Your task to perform on an android device: Open Google Image 0: 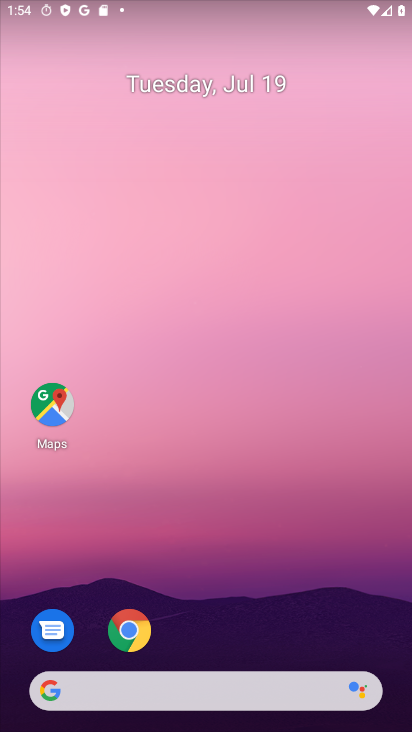
Step 0: drag from (229, 611) to (229, 133)
Your task to perform on an android device: Open Google Image 1: 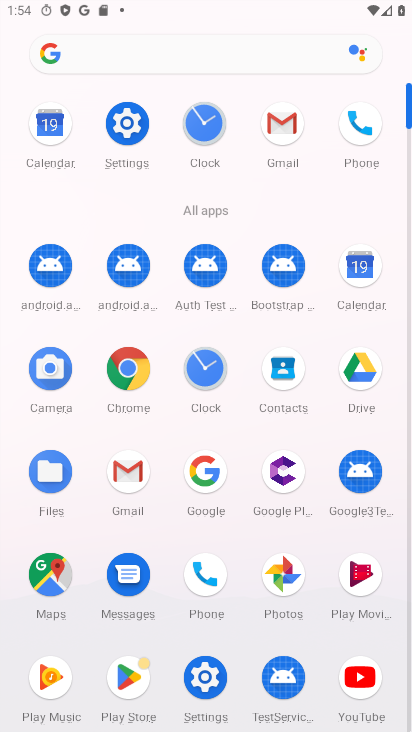
Step 1: click (206, 483)
Your task to perform on an android device: Open Google Image 2: 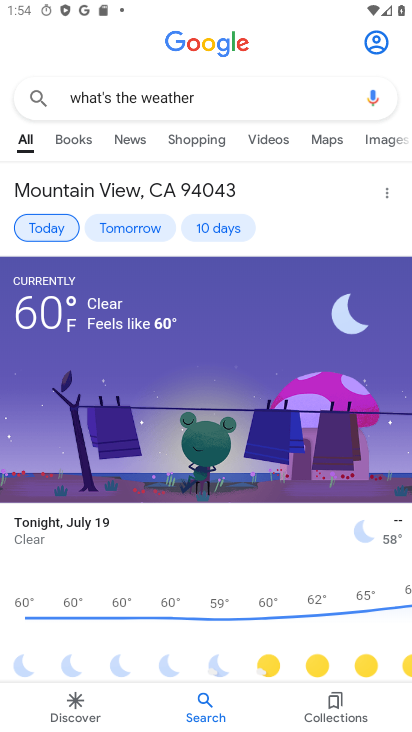
Step 2: task complete